Your task to perform on an android device: turn off notifications in google photos Image 0: 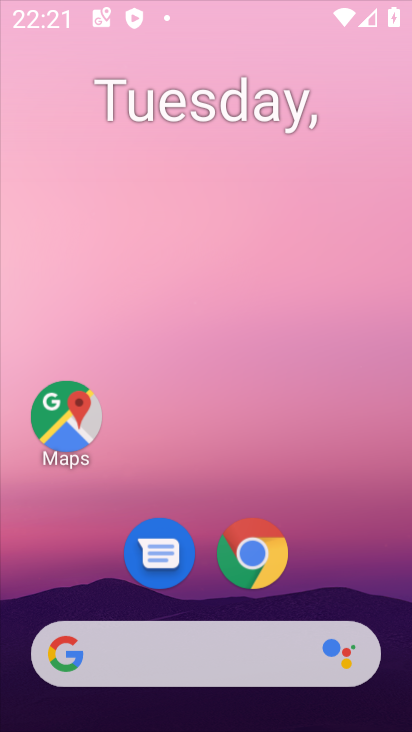
Step 0: click (304, 55)
Your task to perform on an android device: turn off notifications in google photos Image 1: 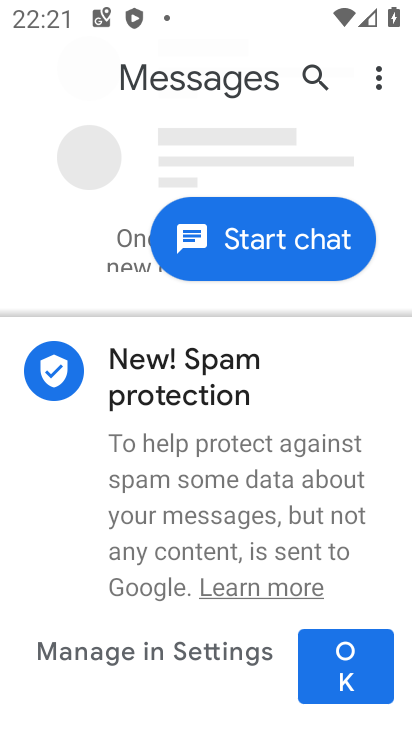
Step 1: press home button
Your task to perform on an android device: turn off notifications in google photos Image 2: 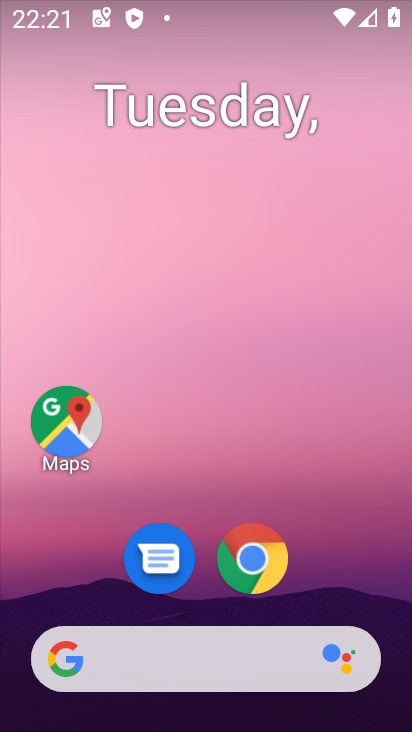
Step 2: drag from (341, 609) to (258, 36)
Your task to perform on an android device: turn off notifications in google photos Image 3: 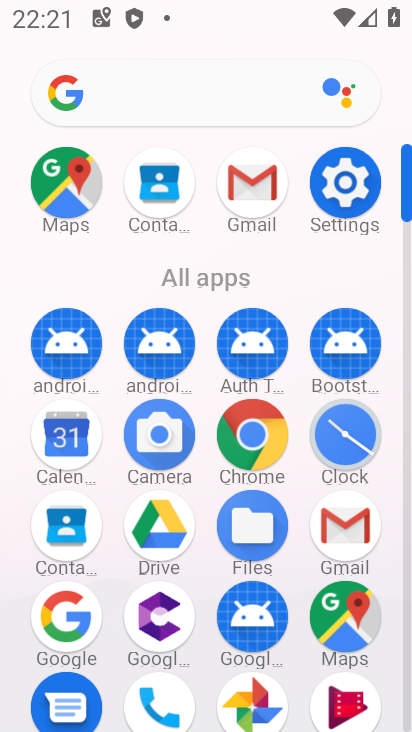
Step 3: click (255, 708)
Your task to perform on an android device: turn off notifications in google photos Image 4: 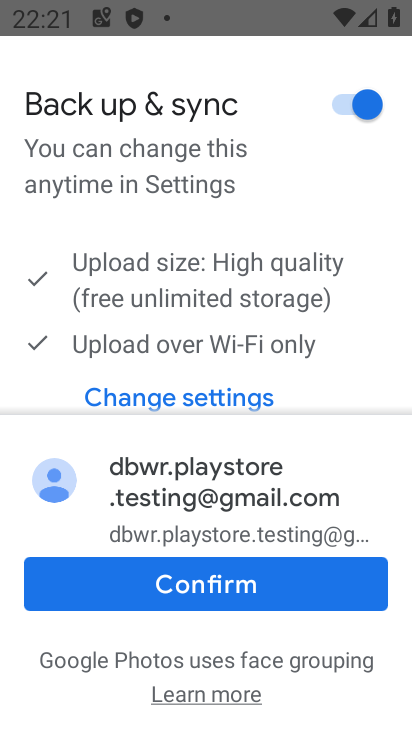
Step 4: click (174, 590)
Your task to perform on an android device: turn off notifications in google photos Image 5: 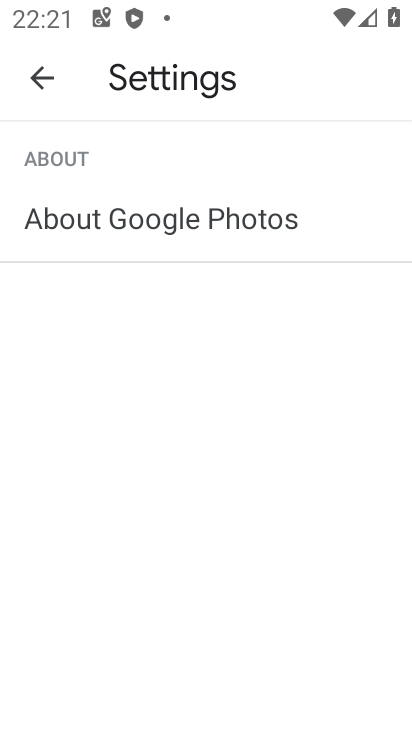
Step 5: click (35, 79)
Your task to perform on an android device: turn off notifications in google photos Image 6: 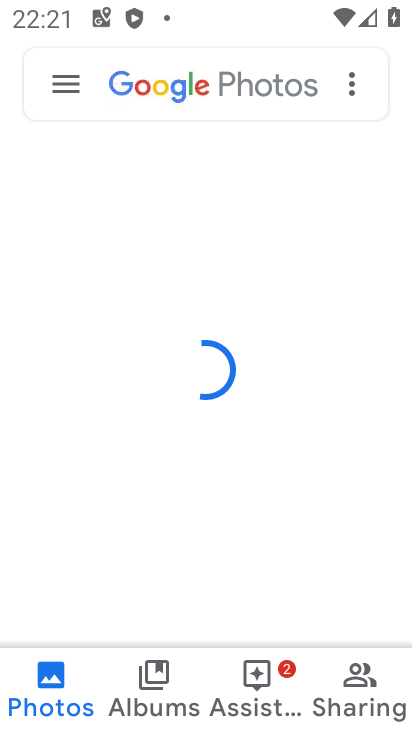
Step 6: click (75, 94)
Your task to perform on an android device: turn off notifications in google photos Image 7: 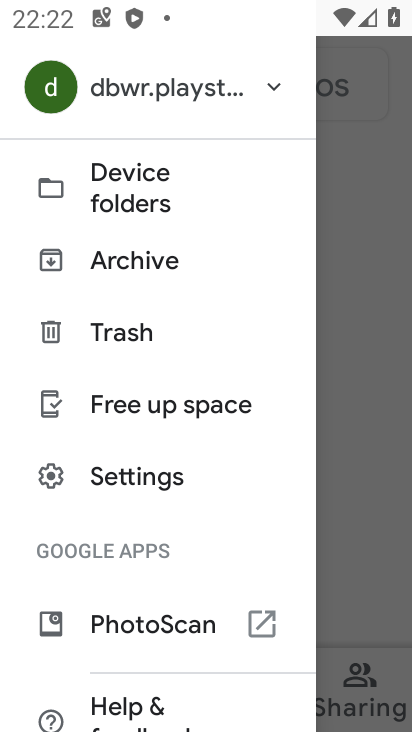
Step 7: click (119, 474)
Your task to perform on an android device: turn off notifications in google photos Image 8: 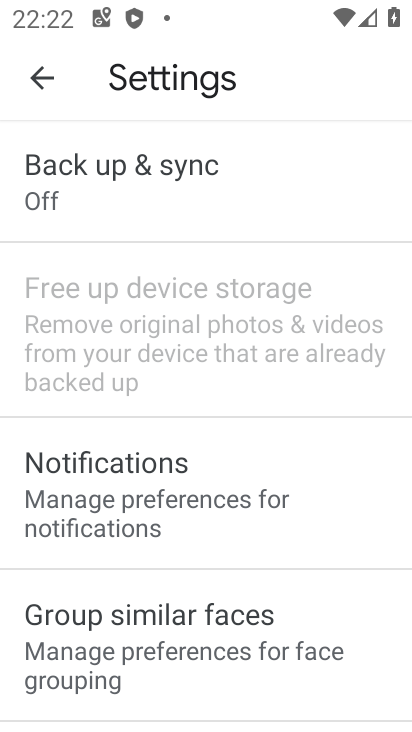
Step 8: click (169, 533)
Your task to perform on an android device: turn off notifications in google photos Image 9: 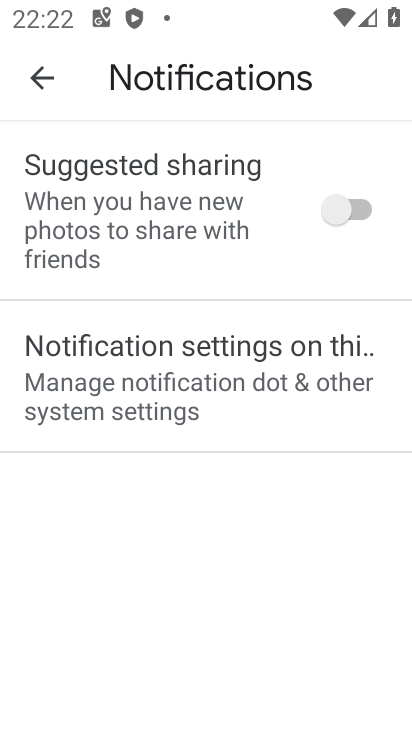
Step 9: click (172, 413)
Your task to perform on an android device: turn off notifications in google photos Image 10: 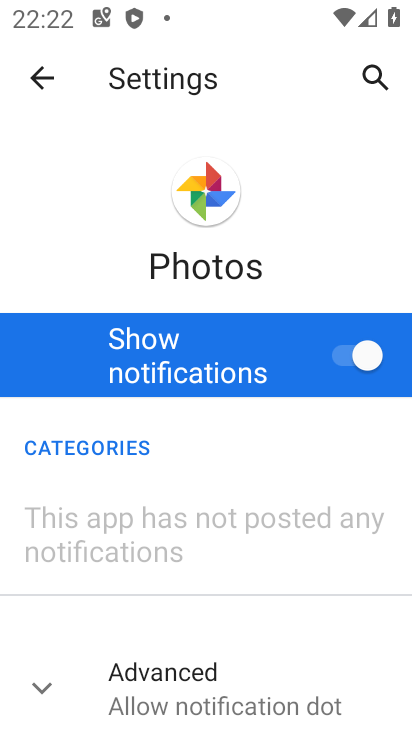
Step 10: click (388, 350)
Your task to perform on an android device: turn off notifications in google photos Image 11: 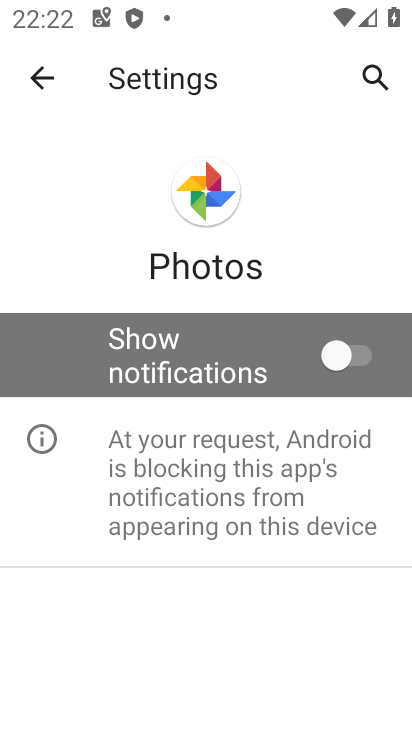
Step 11: task complete